Your task to perform on an android device: Show me productivity apps on the Play Store Image 0: 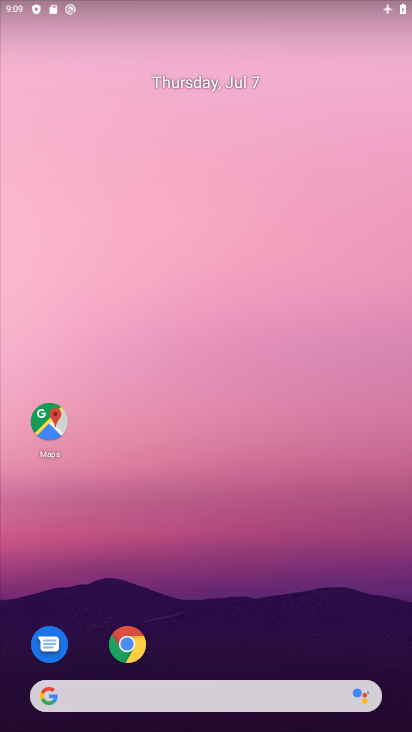
Step 0: drag from (267, 550) to (214, 2)
Your task to perform on an android device: Show me productivity apps on the Play Store Image 1: 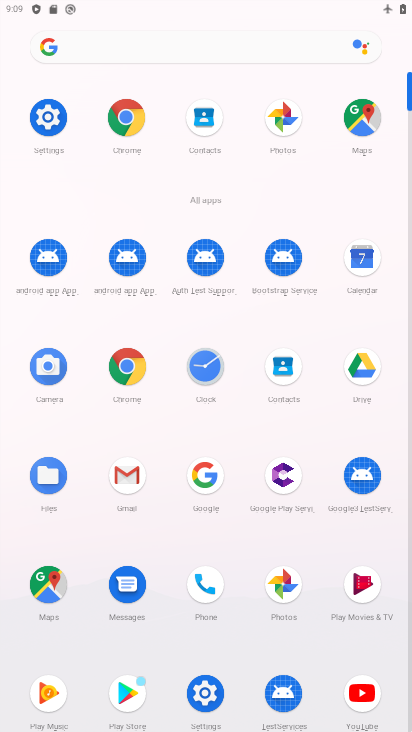
Step 1: click (127, 689)
Your task to perform on an android device: Show me productivity apps on the Play Store Image 2: 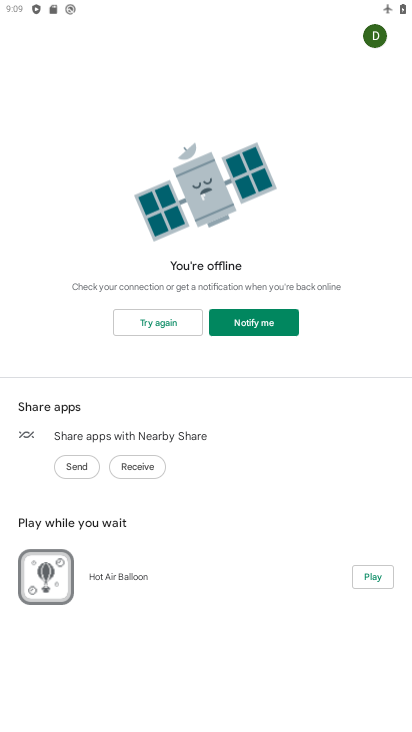
Step 2: task complete